Your task to perform on an android device: Search for pizza restaurants on Maps Image 0: 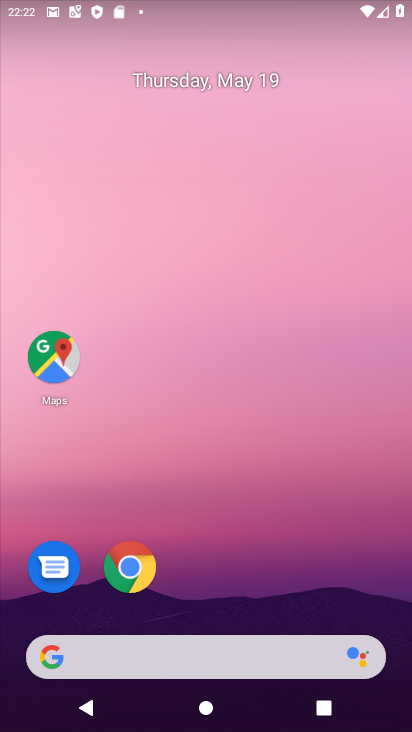
Step 0: press home button
Your task to perform on an android device: Search for pizza restaurants on Maps Image 1: 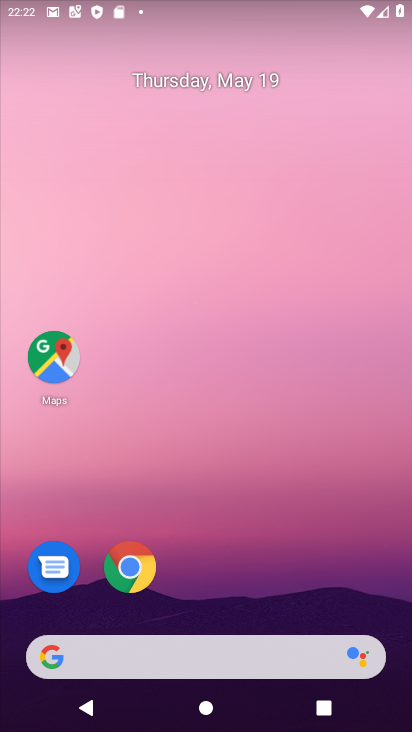
Step 1: click (49, 346)
Your task to perform on an android device: Search for pizza restaurants on Maps Image 2: 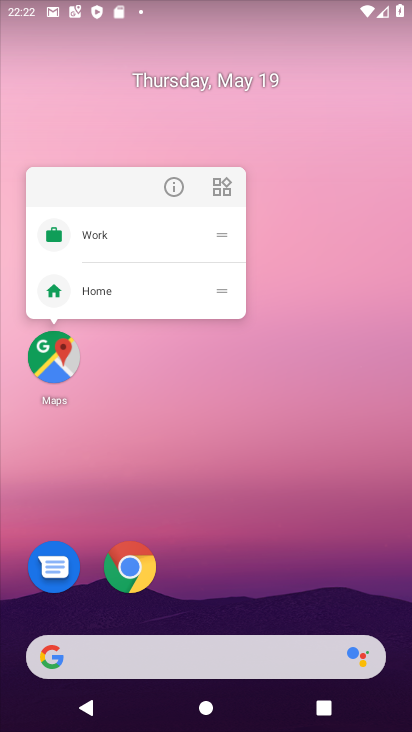
Step 2: click (56, 351)
Your task to perform on an android device: Search for pizza restaurants on Maps Image 3: 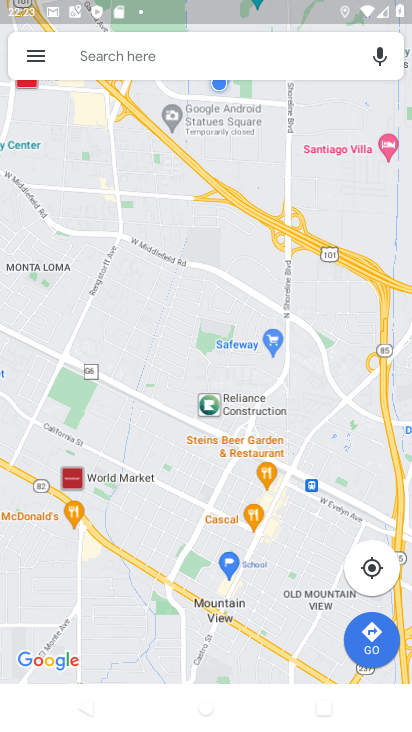
Step 3: click (115, 52)
Your task to perform on an android device: Search for pizza restaurants on Maps Image 4: 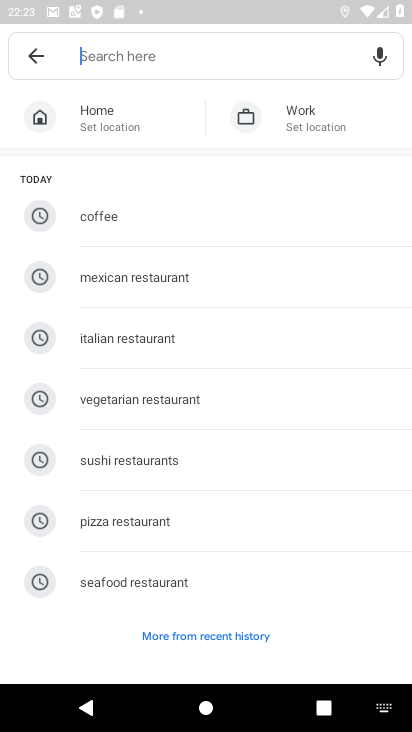
Step 4: click (148, 520)
Your task to perform on an android device: Search for pizza restaurants on Maps Image 5: 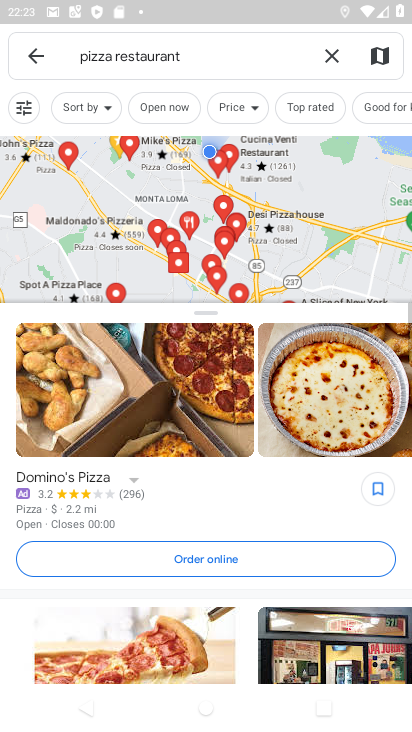
Step 5: task complete